Your task to perform on an android device: set an alarm Image 0: 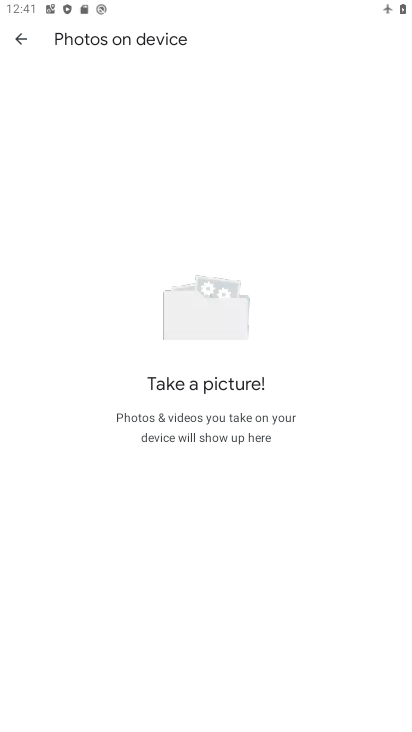
Step 0: press home button
Your task to perform on an android device: set an alarm Image 1: 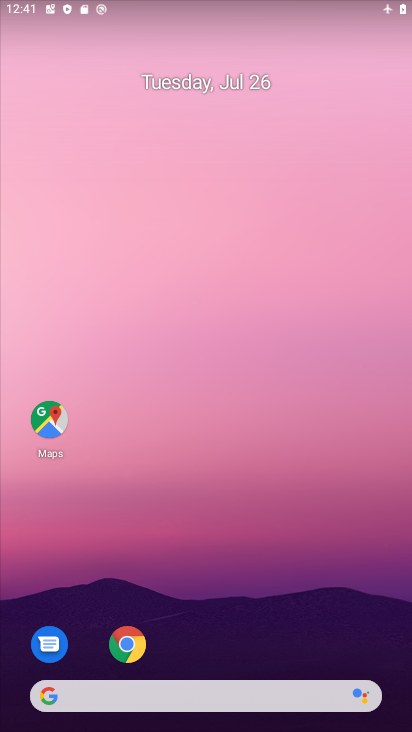
Step 1: drag from (164, 612) to (211, 64)
Your task to perform on an android device: set an alarm Image 2: 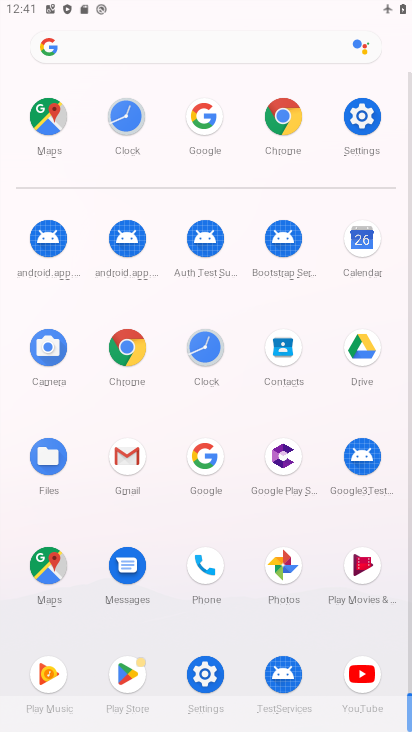
Step 2: click (208, 347)
Your task to perform on an android device: set an alarm Image 3: 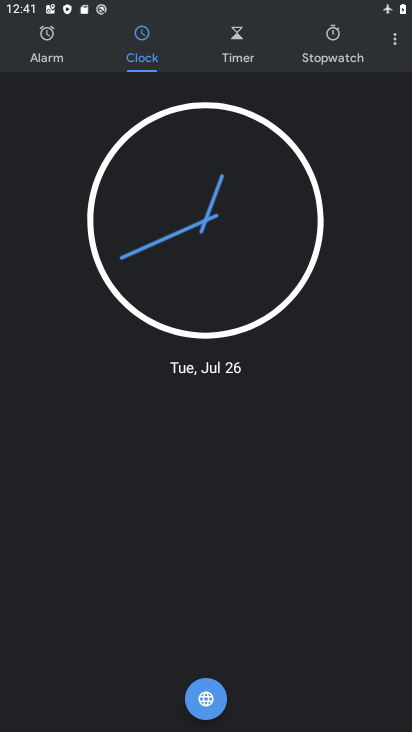
Step 3: click (58, 56)
Your task to perform on an android device: set an alarm Image 4: 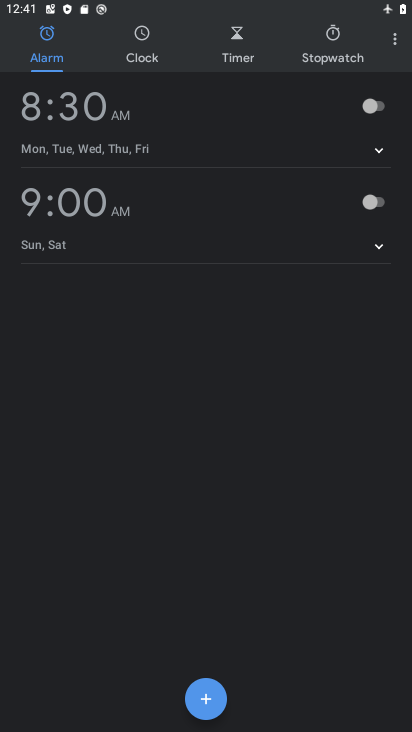
Step 4: click (197, 704)
Your task to perform on an android device: set an alarm Image 5: 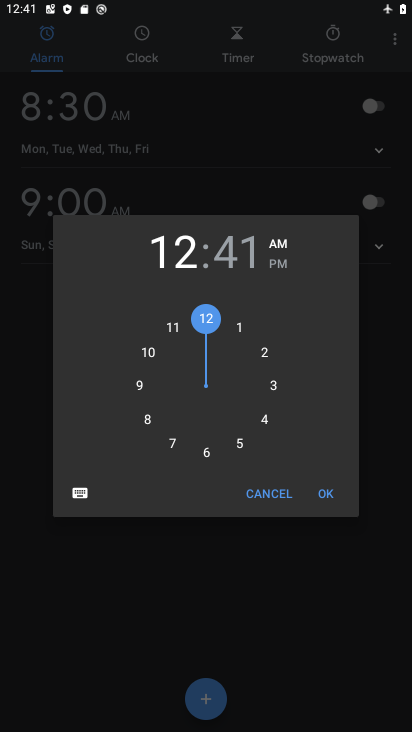
Step 5: click (323, 494)
Your task to perform on an android device: set an alarm Image 6: 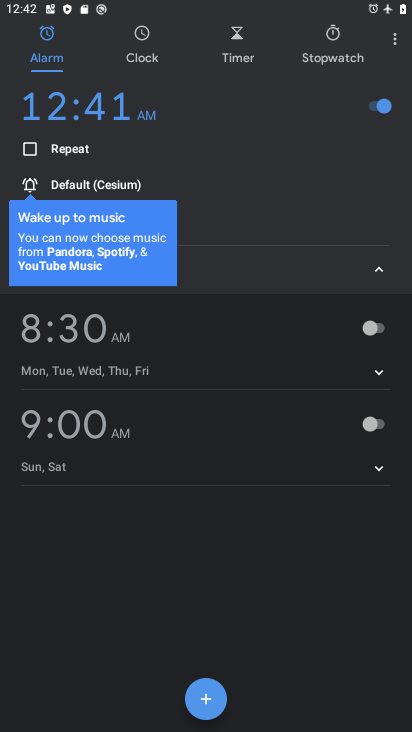
Step 6: task complete